Your task to perform on an android device: turn on sleep mode Image 0: 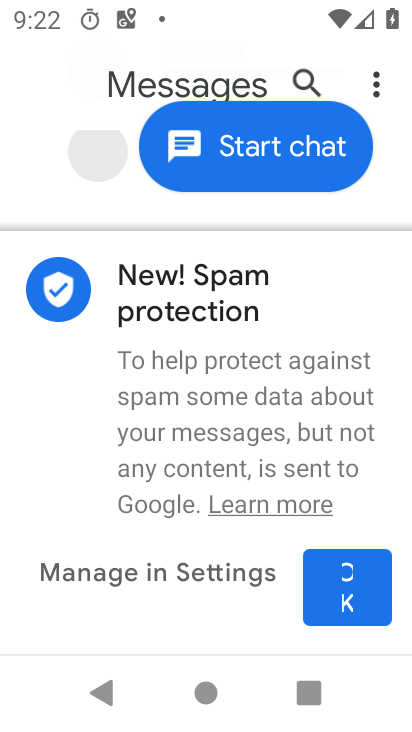
Step 0: press home button
Your task to perform on an android device: turn on sleep mode Image 1: 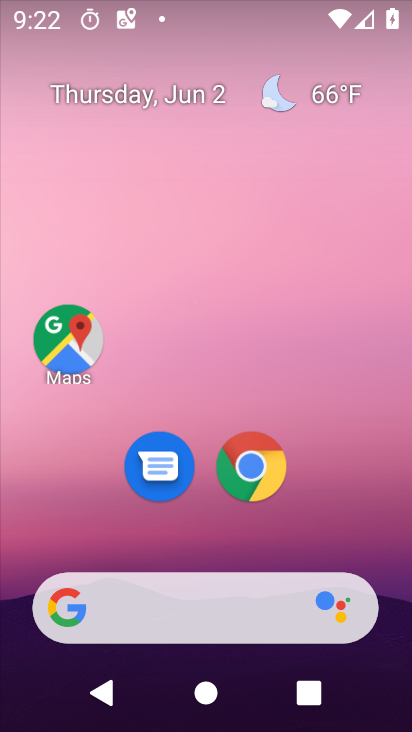
Step 1: drag from (75, 487) to (236, 165)
Your task to perform on an android device: turn on sleep mode Image 2: 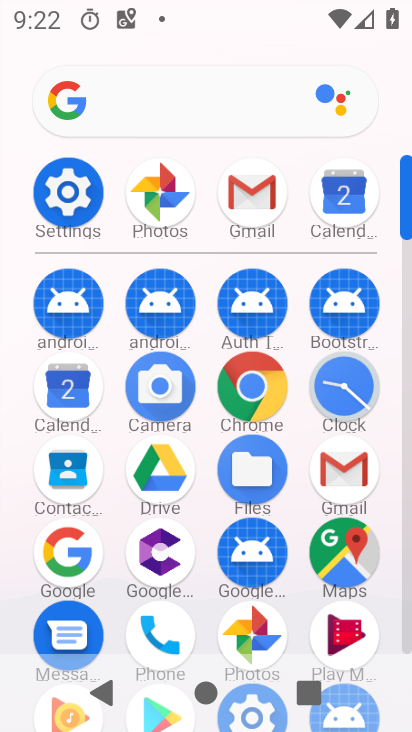
Step 2: click (76, 191)
Your task to perform on an android device: turn on sleep mode Image 3: 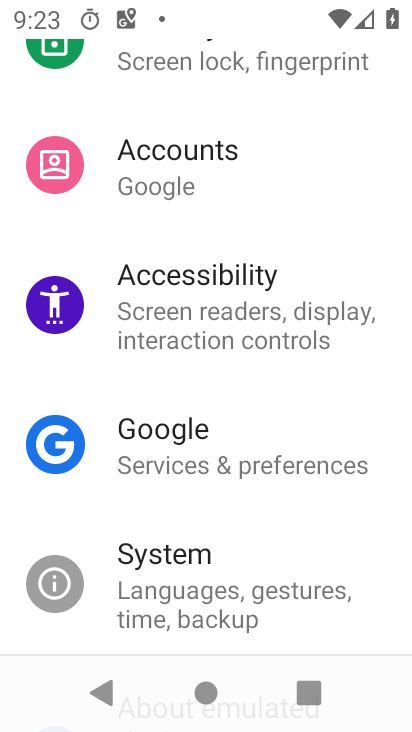
Step 3: drag from (157, 194) to (132, 583)
Your task to perform on an android device: turn on sleep mode Image 4: 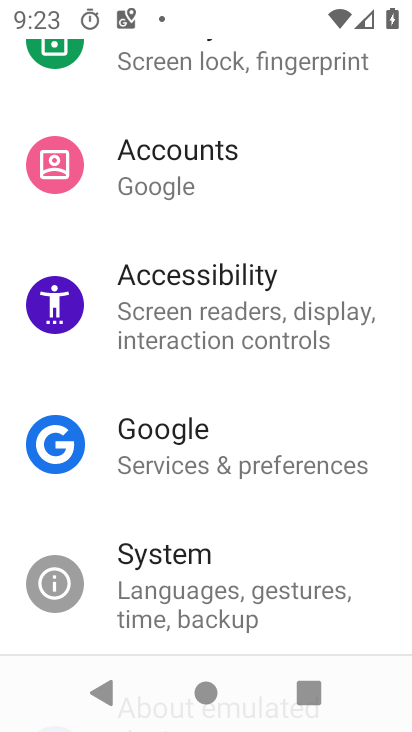
Step 4: drag from (123, 110) to (149, 656)
Your task to perform on an android device: turn on sleep mode Image 5: 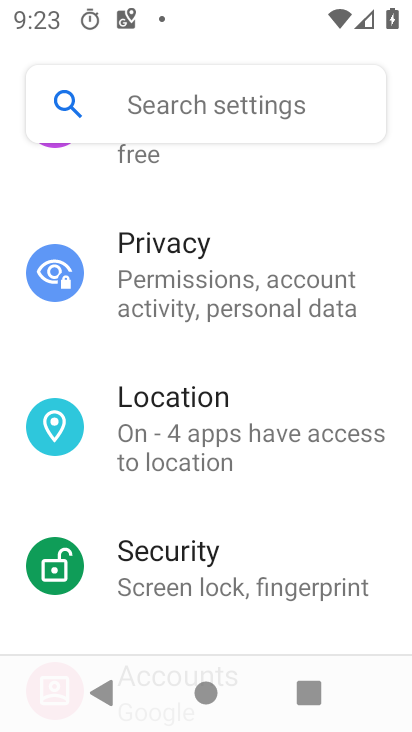
Step 5: drag from (219, 214) to (252, 591)
Your task to perform on an android device: turn on sleep mode Image 6: 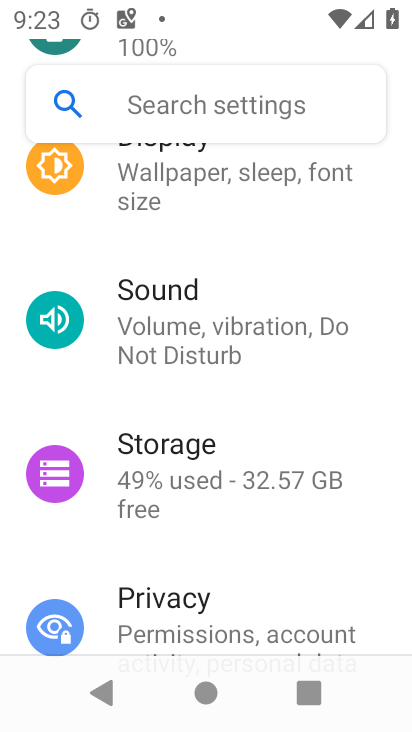
Step 6: click (179, 177)
Your task to perform on an android device: turn on sleep mode Image 7: 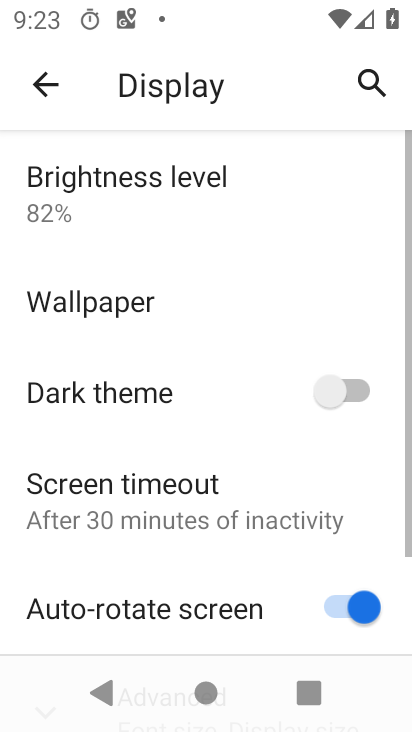
Step 7: task complete